Your task to perform on an android device: turn off wifi Image 0: 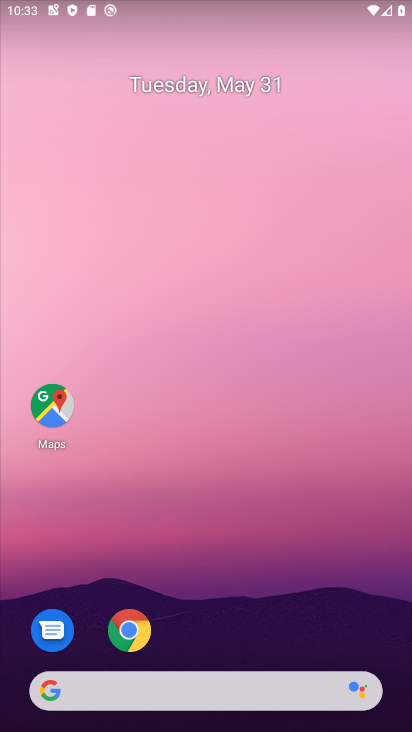
Step 0: drag from (195, 7) to (205, 259)
Your task to perform on an android device: turn off wifi Image 1: 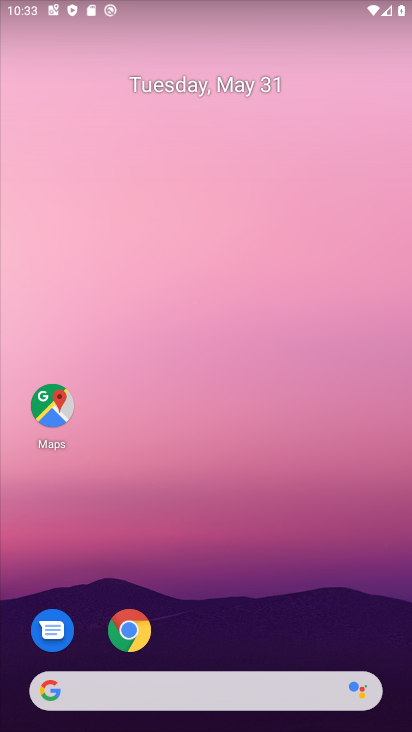
Step 1: drag from (30, 112) to (178, 338)
Your task to perform on an android device: turn off wifi Image 2: 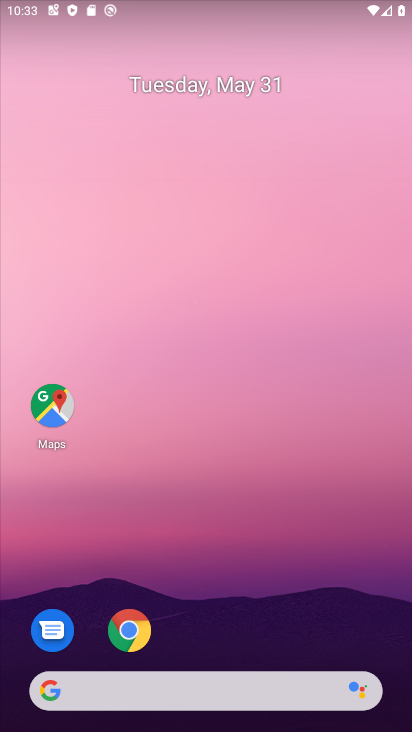
Step 2: drag from (171, 2) to (222, 642)
Your task to perform on an android device: turn off wifi Image 3: 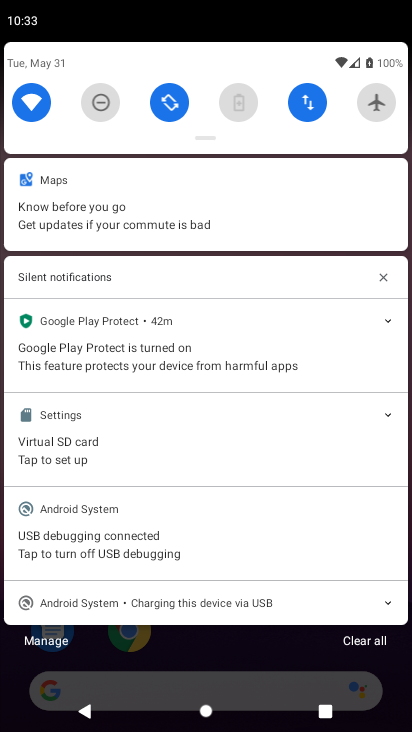
Step 3: click (30, 114)
Your task to perform on an android device: turn off wifi Image 4: 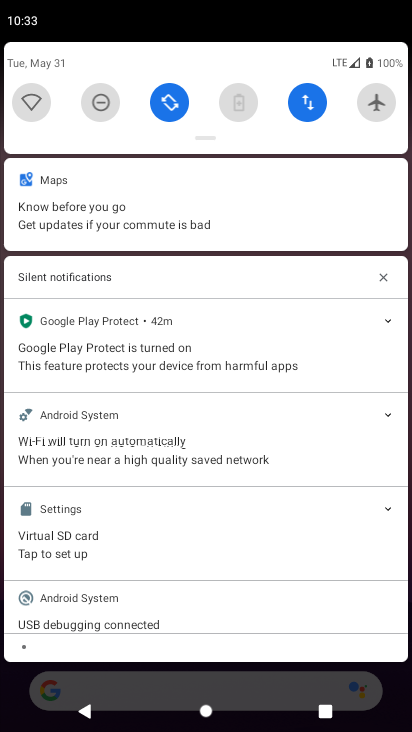
Step 4: task complete